Your task to perform on an android device: toggle improve location accuracy Image 0: 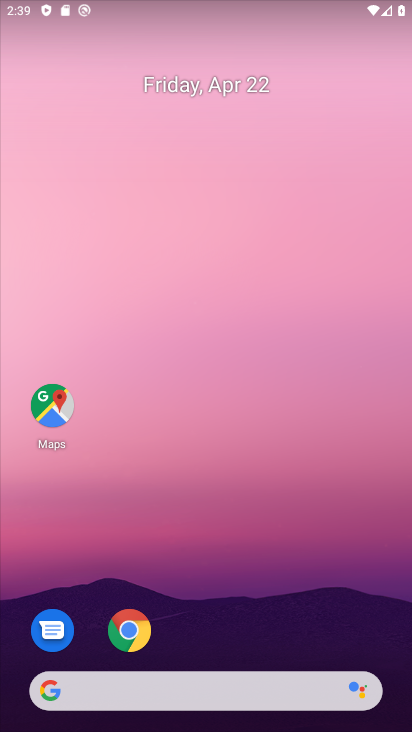
Step 0: drag from (345, 604) to (335, 106)
Your task to perform on an android device: toggle improve location accuracy Image 1: 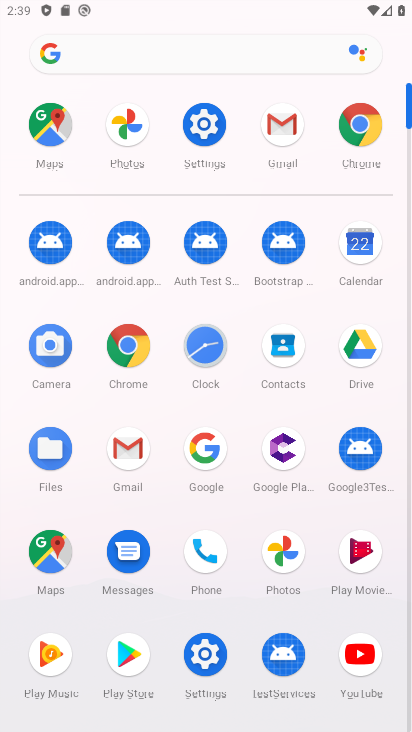
Step 1: click (199, 649)
Your task to perform on an android device: toggle improve location accuracy Image 2: 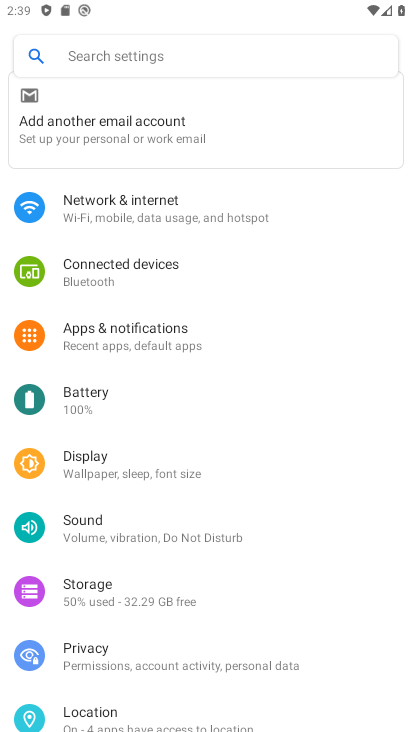
Step 2: drag from (237, 610) to (286, 285)
Your task to perform on an android device: toggle improve location accuracy Image 3: 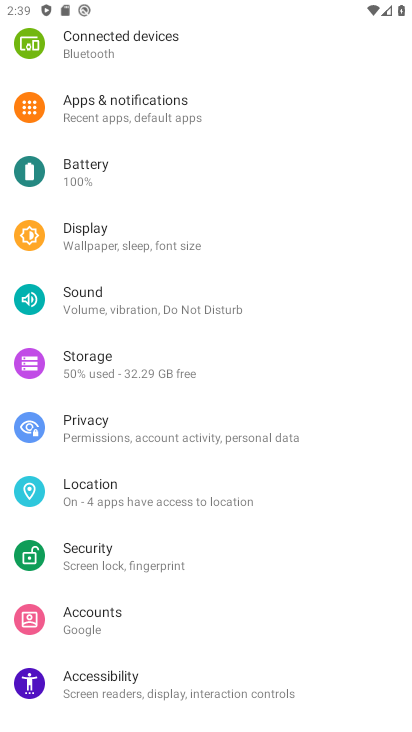
Step 3: click (168, 503)
Your task to perform on an android device: toggle improve location accuracy Image 4: 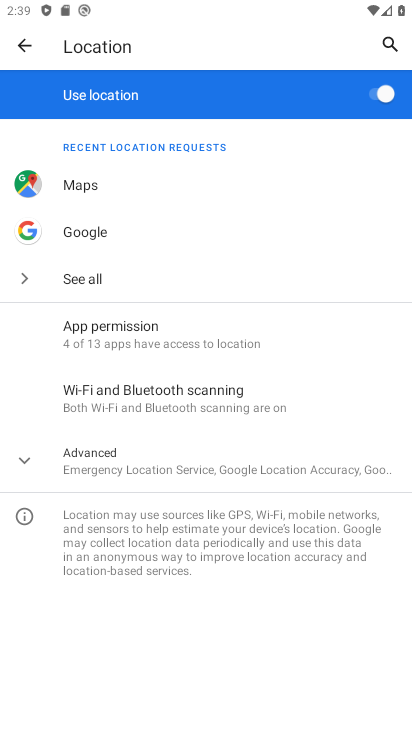
Step 4: click (182, 475)
Your task to perform on an android device: toggle improve location accuracy Image 5: 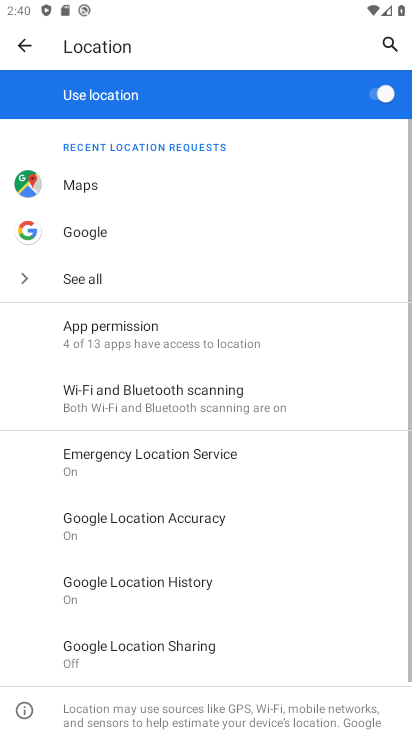
Step 5: drag from (300, 638) to (349, 321)
Your task to perform on an android device: toggle improve location accuracy Image 6: 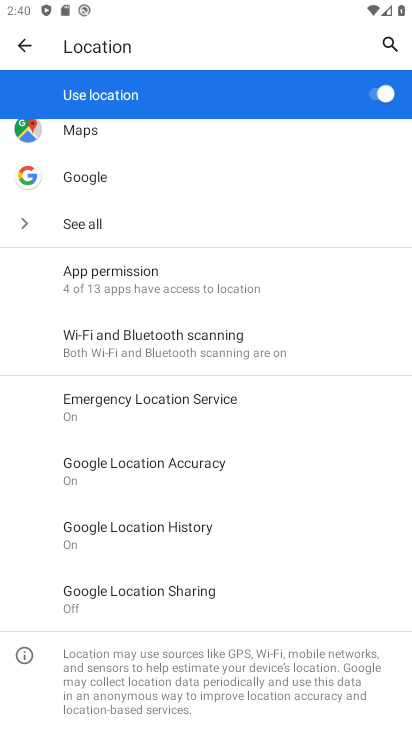
Step 6: click (166, 465)
Your task to perform on an android device: toggle improve location accuracy Image 7: 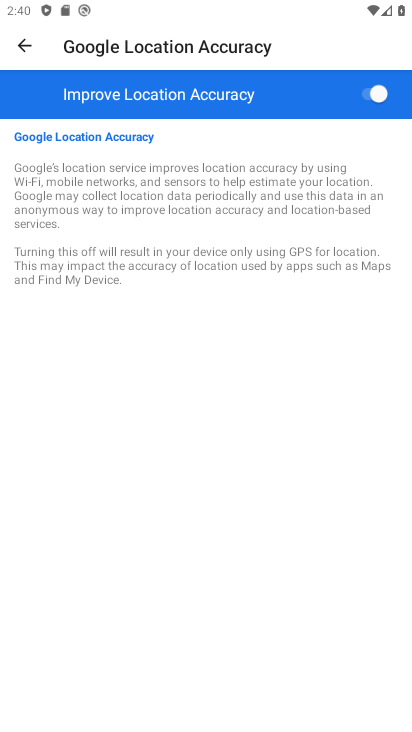
Step 7: click (364, 94)
Your task to perform on an android device: toggle improve location accuracy Image 8: 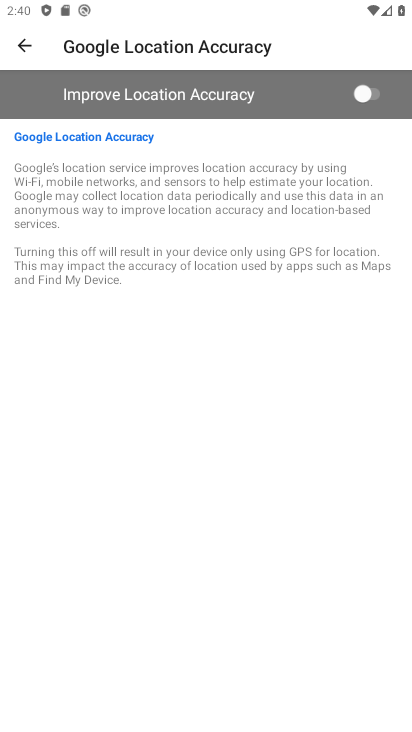
Step 8: task complete